Your task to perform on an android device: Is it going to rain this weekend? Image 0: 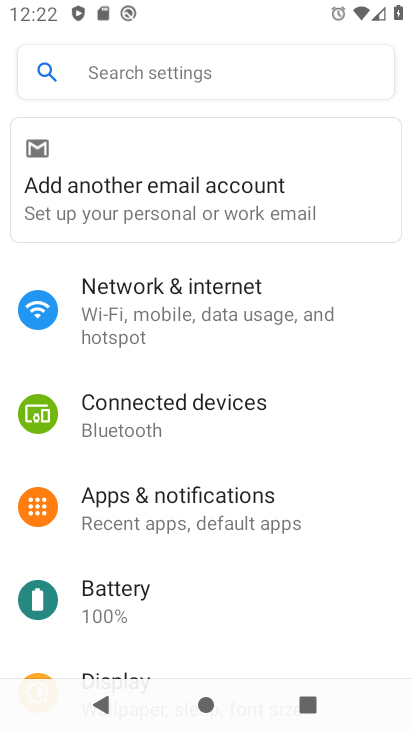
Step 0: press home button
Your task to perform on an android device: Is it going to rain this weekend? Image 1: 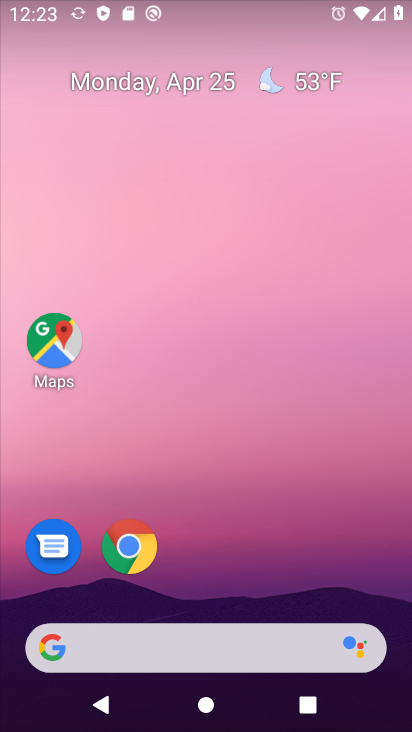
Step 1: click (227, 170)
Your task to perform on an android device: Is it going to rain this weekend? Image 2: 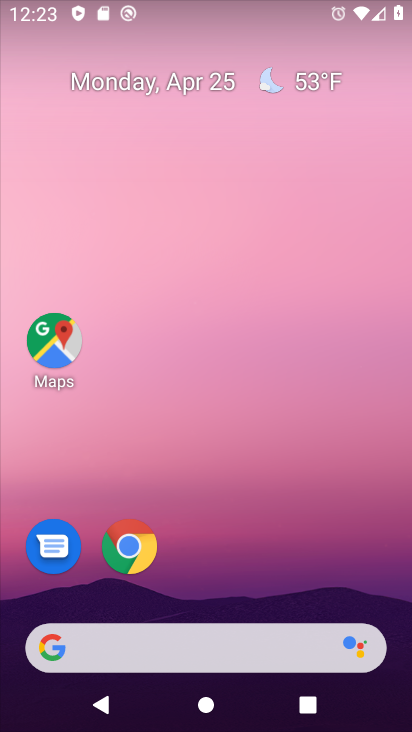
Step 2: drag from (198, 569) to (222, 144)
Your task to perform on an android device: Is it going to rain this weekend? Image 3: 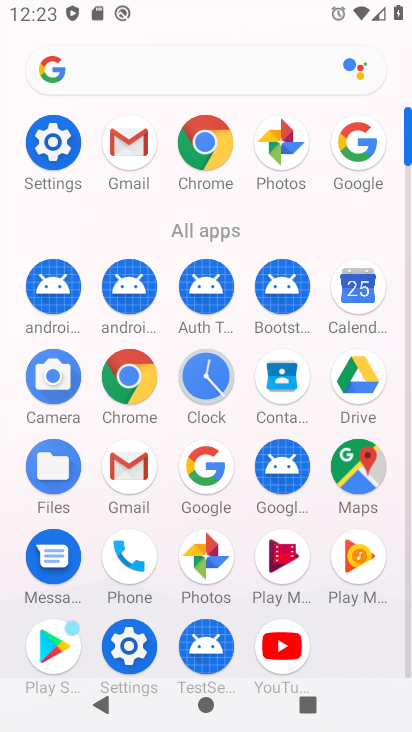
Step 3: click (192, 471)
Your task to perform on an android device: Is it going to rain this weekend? Image 4: 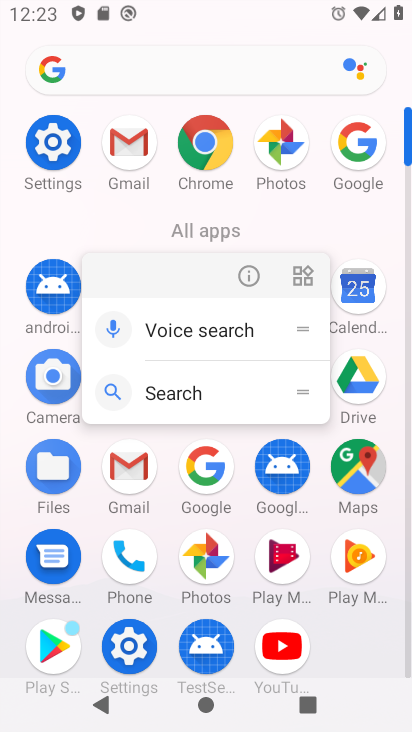
Step 4: click (222, 479)
Your task to perform on an android device: Is it going to rain this weekend? Image 5: 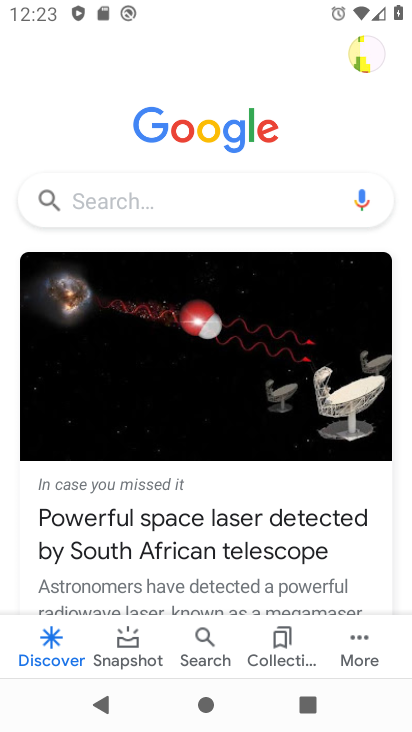
Step 5: click (140, 200)
Your task to perform on an android device: Is it going to rain this weekend? Image 6: 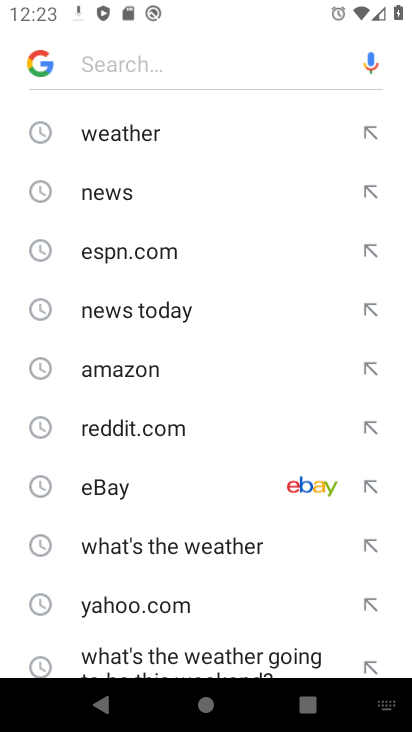
Step 6: click (124, 138)
Your task to perform on an android device: Is it going to rain this weekend? Image 7: 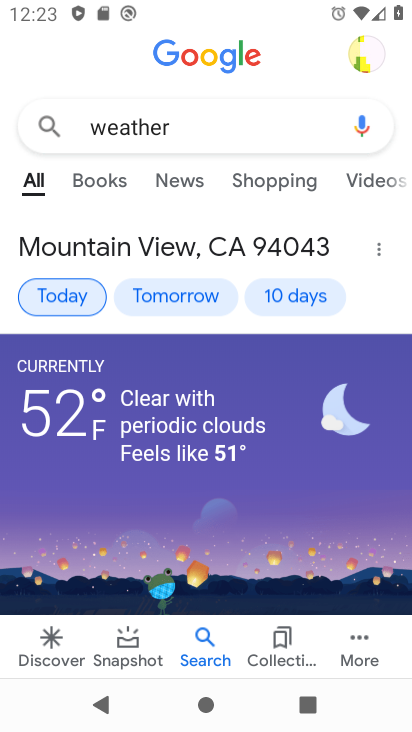
Step 7: click (271, 299)
Your task to perform on an android device: Is it going to rain this weekend? Image 8: 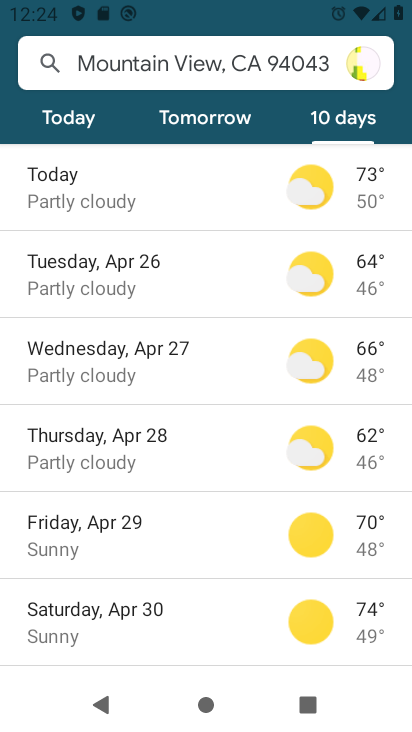
Step 8: task complete